Your task to perform on an android device: turn on location history Image 0: 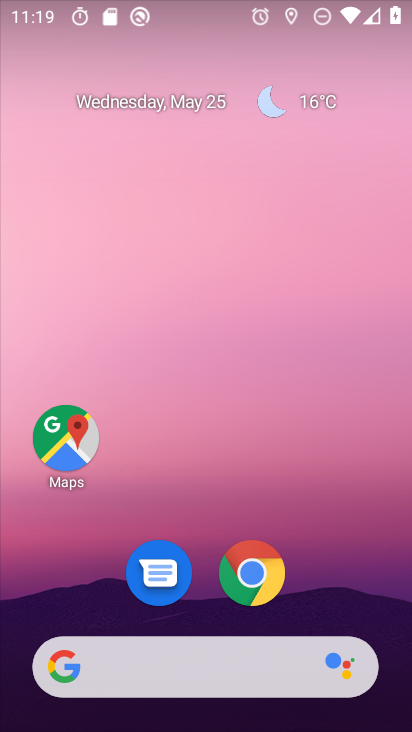
Step 0: click (66, 449)
Your task to perform on an android device: turn on location history Image 1: 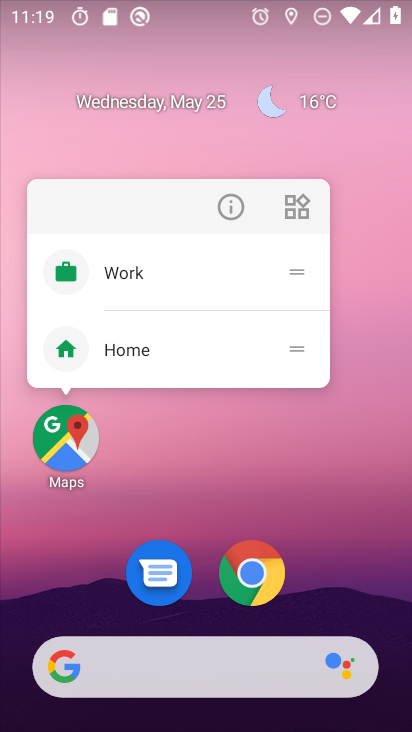
Step 1: click (67, 435)
Your task to perform on an android device: turn on location history Image 2: 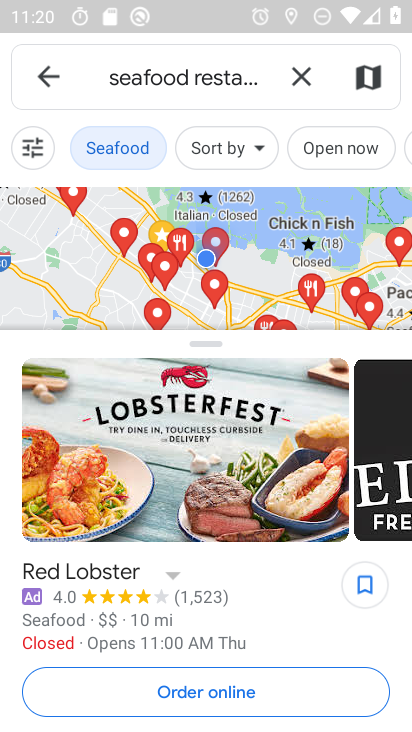
Step 2: click (290, 82)
Your task to perform on an android device: turn on location history Image 3: 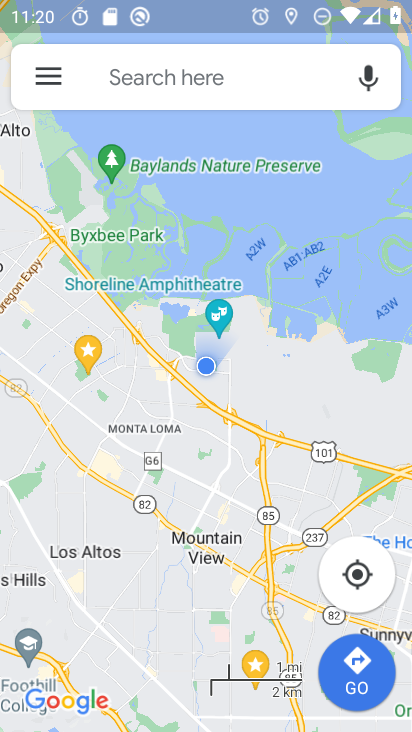
Step 3: click (48, 77)
Your task to perform on an android device: turn on location history Image 4: 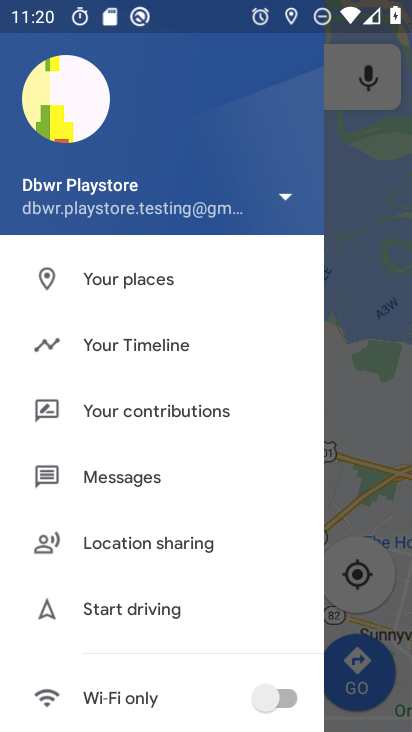
Step 4: click (116, 349)
Your task to perform on an android device: turn on location history Image 5: 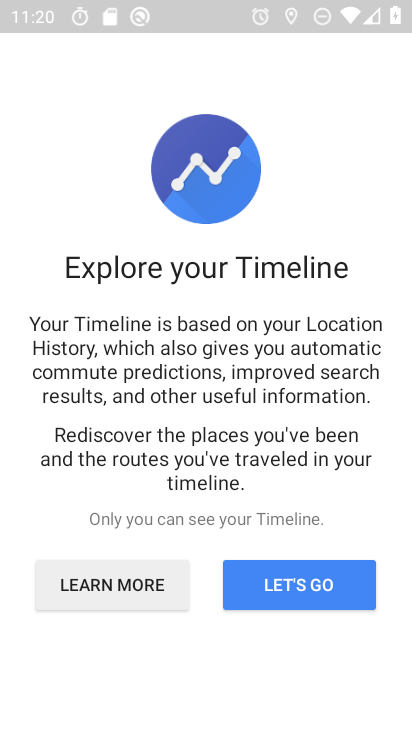
Step 5: click (303, 592)
Your task to perform on an android device: turn on location history Image 6: 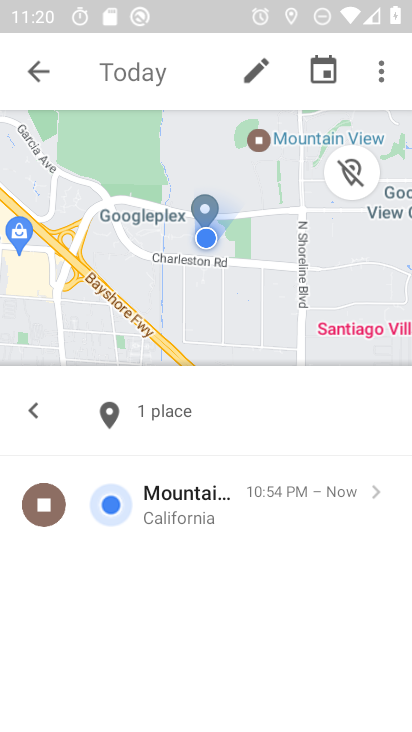
Step 6: click (381, 78)
Your task to perform on an android device: turn on location history Image 7: 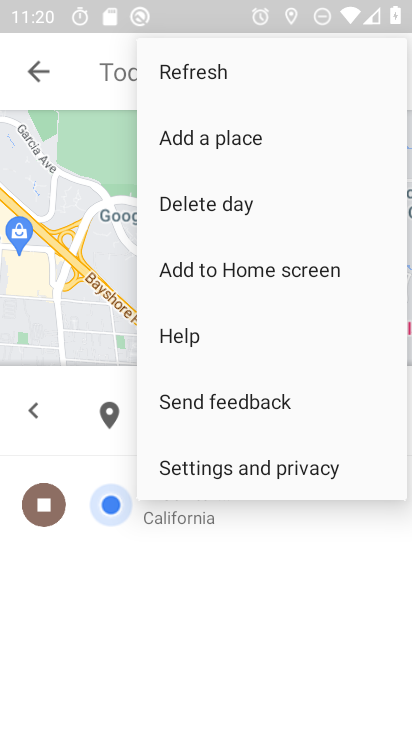
Step 7: click (198, 461)
Your task to perform on an android device: turn on location history Image 8: 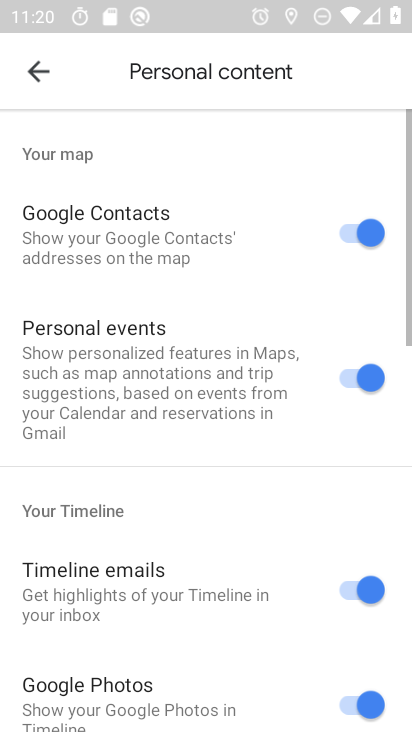
Step 8: drag from (194, 573) to (195, 146)
Your task to perform on an android device: turn on location history Image 9: 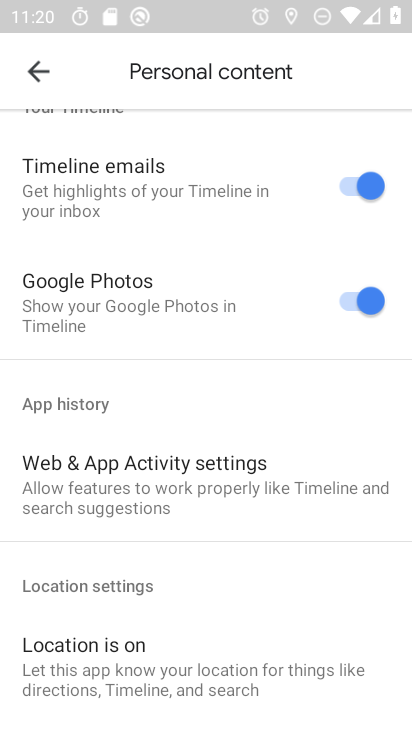
Step 9: drag from (161, 508) to (175, 205)
Your task to perform on an android device: turn on location history Image 10: 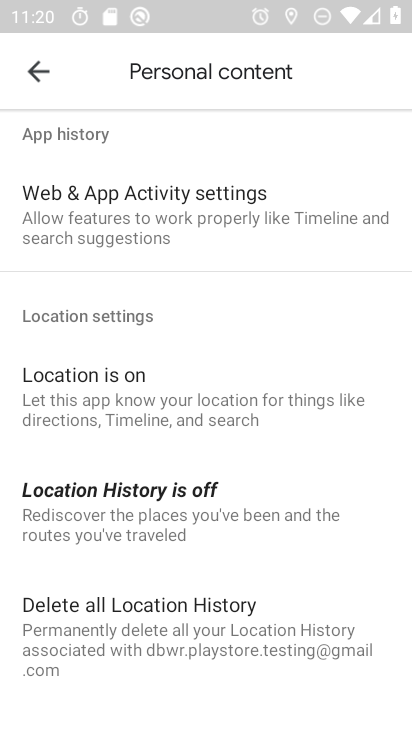
Step 10: click (115, 512)
Your task to perform on an android device: turn on location history Image 11: 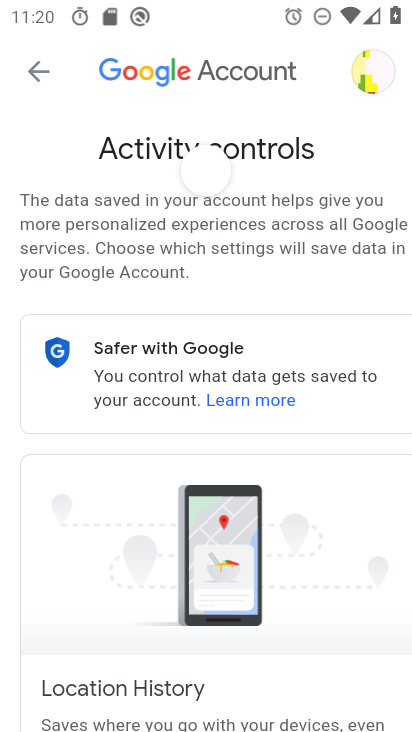
Step 11: task complete